Your task to perform on an android device: star an email in the gmail app Image 0: 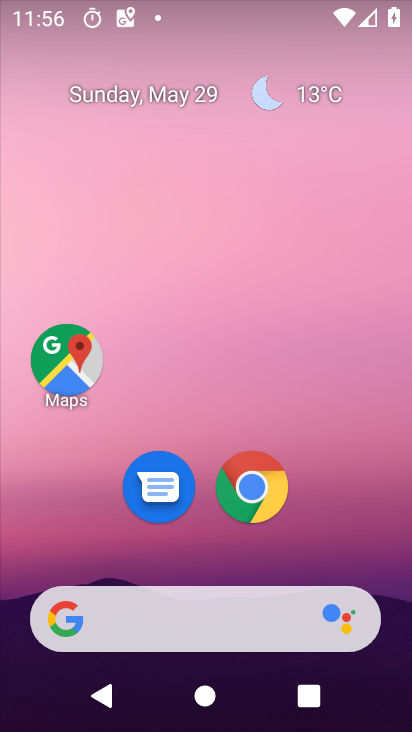
Step 0: drag from (391, 673) to (322, 191)
Your task to perform on an android device: star an email in the gmail app Image 1: 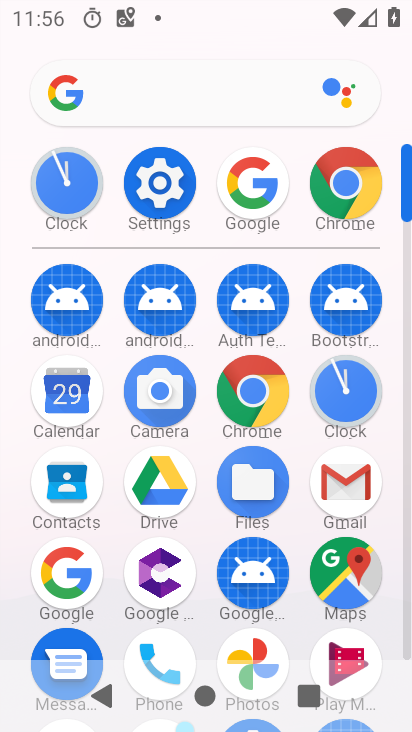
Step 1: click (333, 471)
Your task to perform on an android device: star an email in the gmail app Image 2: 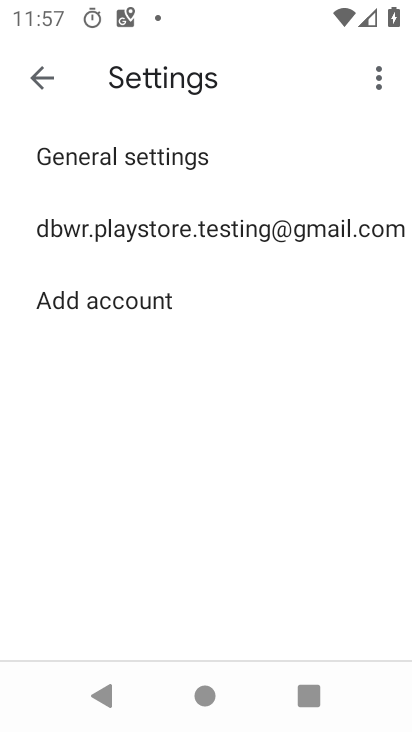
Step 2: click (44, 78)
Your task to perform on an android device: star an email in the gmail app Image 3: 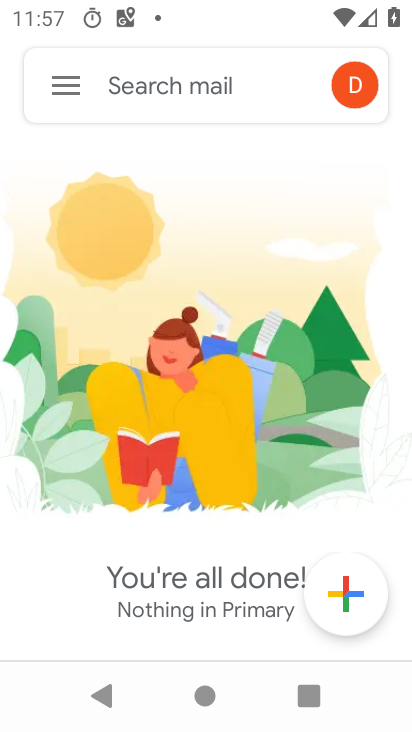
Step 3: click (59, 82)
Your task to perform on an android device: star an email in the gmail app Image 4: 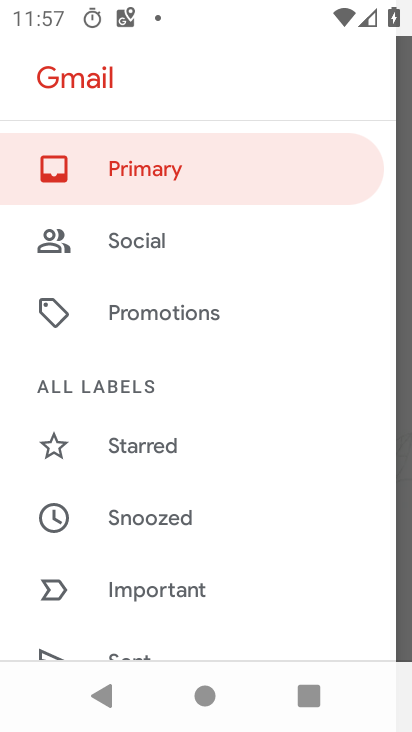
Step 4: click (168, 153)
Your task to perform on an android device: star an email in the gmail app Image 5: 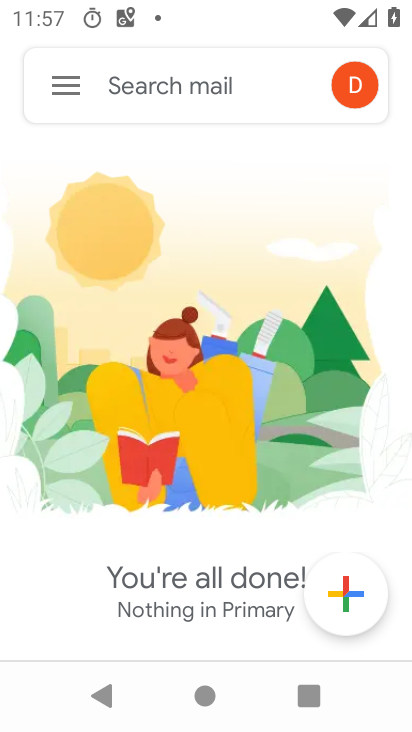
Step 5: task complete